Your task to perform on an android device: Search for razer thresher on ebay.com, select the first entry, add it to the cart, then select checkout. Image 0: 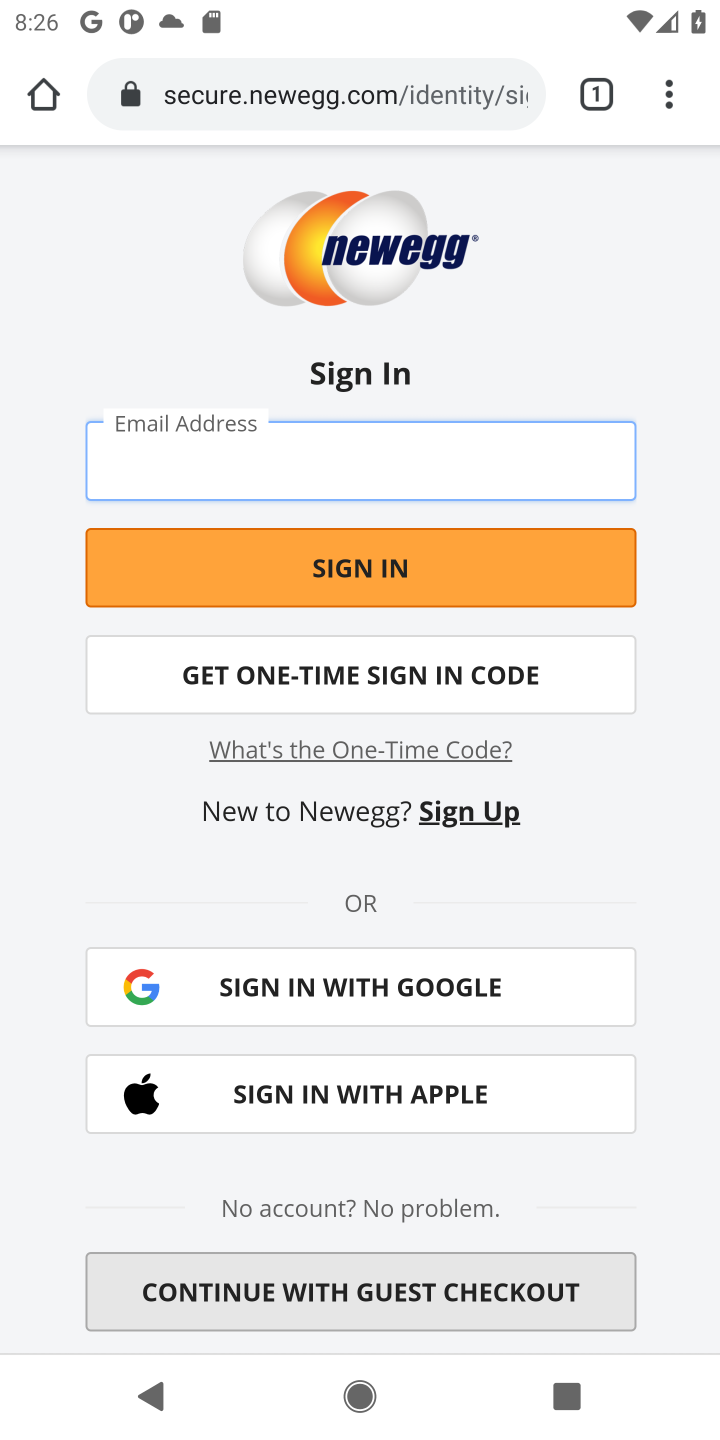
Step 0: press home button
Your task to perform on an android device: Search for razer thresher on ebay.com, select the first entry, add it to the cart, then select checkout. Image 1: 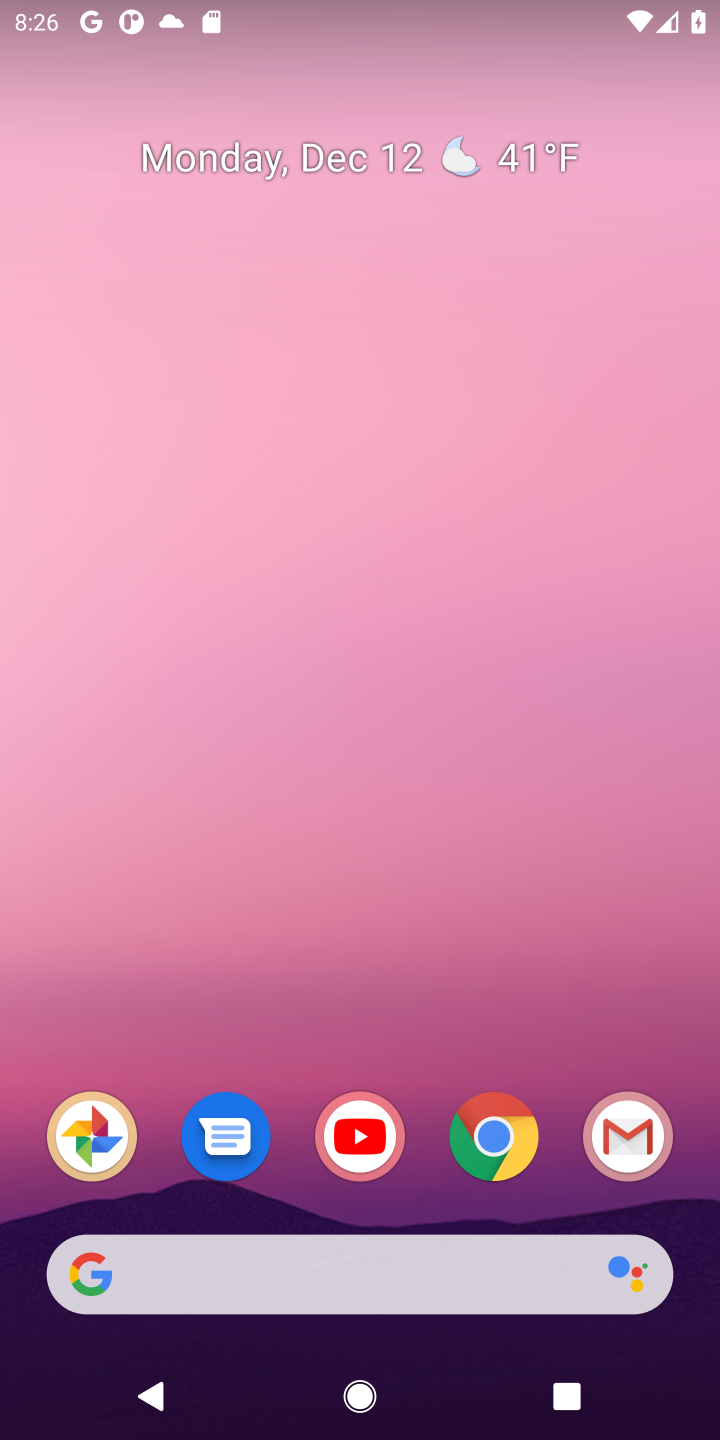
Step 1: click (487, 1142)
Your task to perform on an android device: Search for razer thresher on ebay.com, select the first entry, add it to the cart, then select checkout. Image 2: 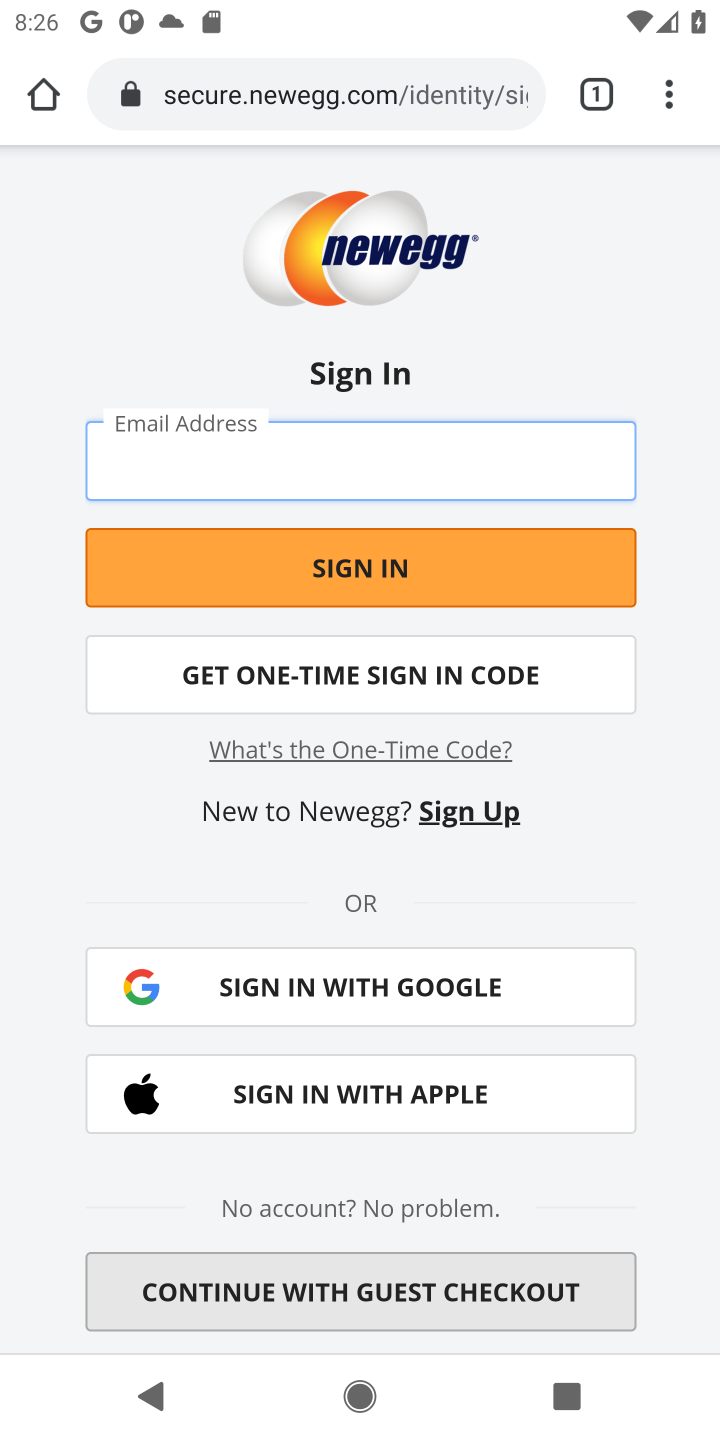
Step 2: click (299, 93)
Your task to perform on an android device: Search for razer thresher on ebay.com, select the first entry, add it to the cart, then select checkout. Image 3: 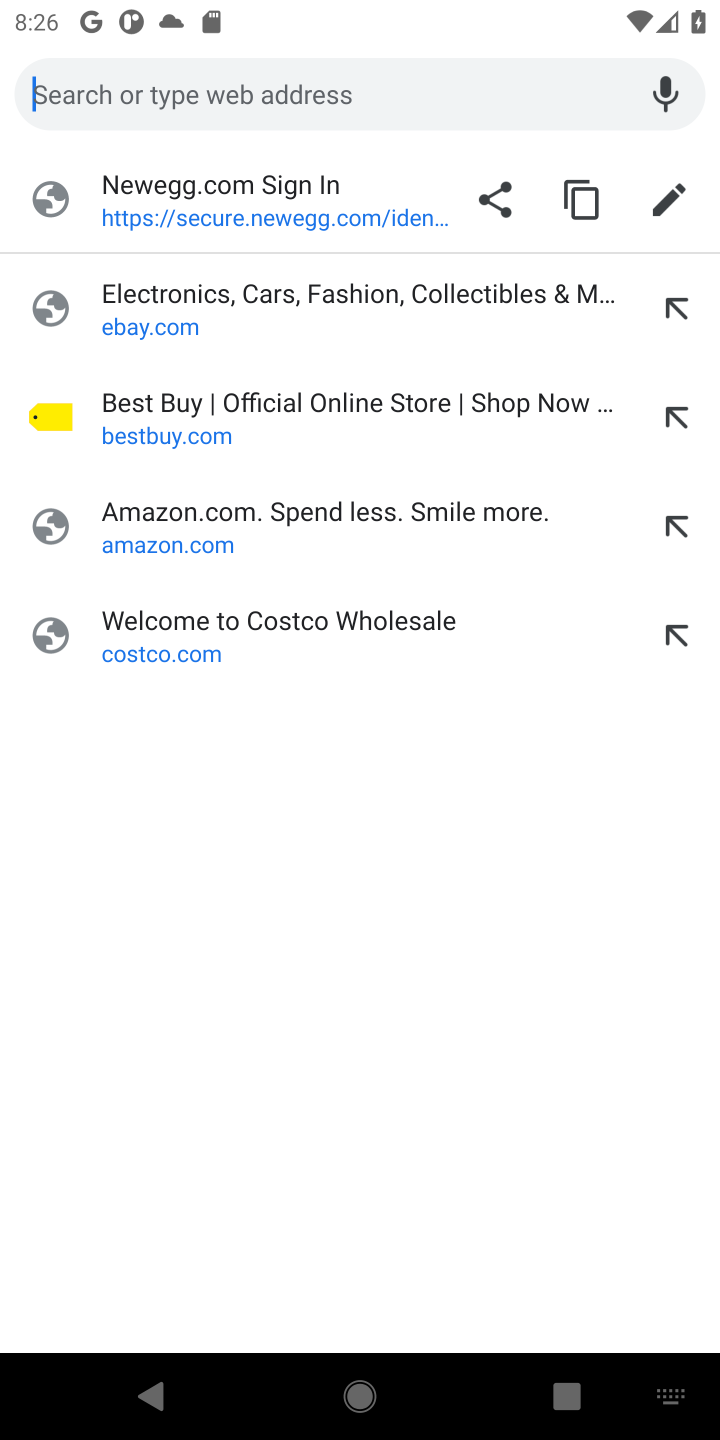
Step 3: click (166, 311)
Your task to perform on an android device: Search for razer thresher on ebay.com, select the first entry, add it to the cart, then select checkout. Image 4: 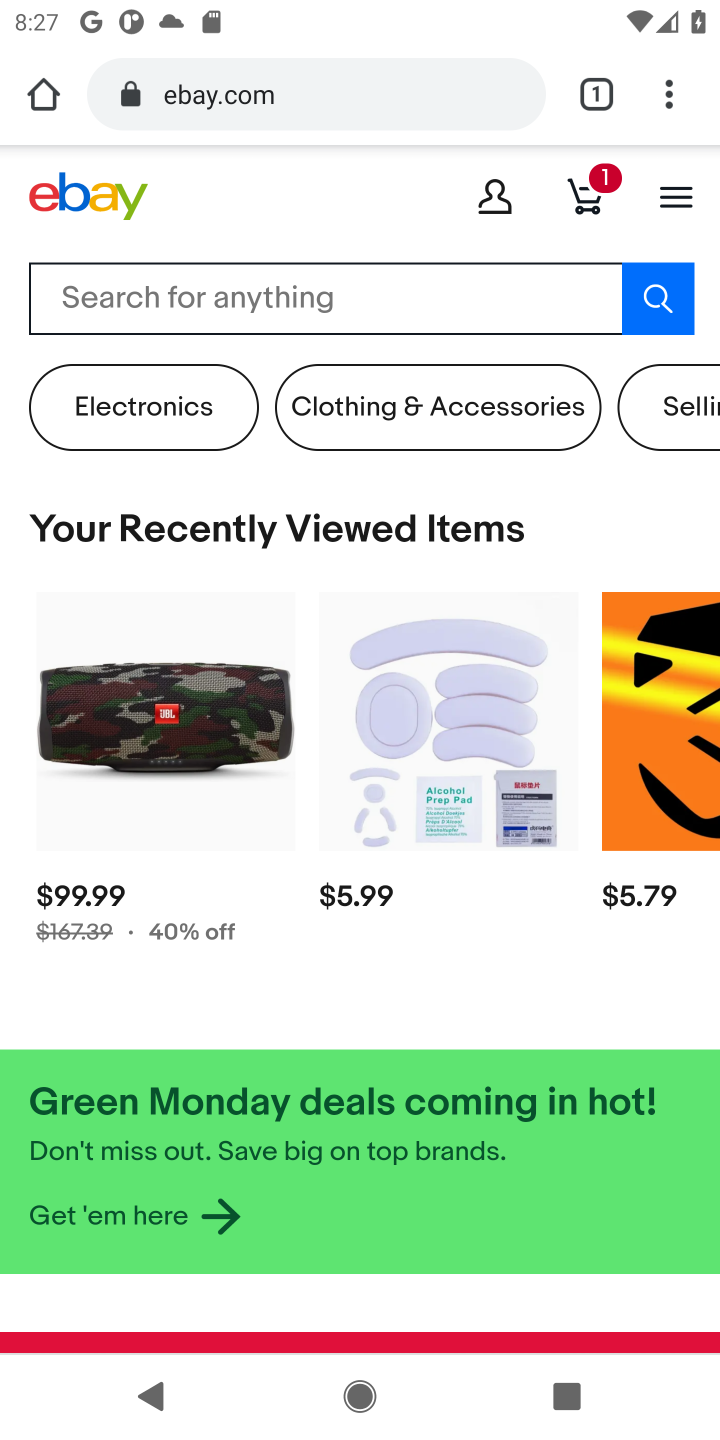
Step 4: click (169, 298)
Your task to perform on an android device: Search for razer thresher on ebay.com, select the first entry, add it to the cart, then select checkout. Image 5: 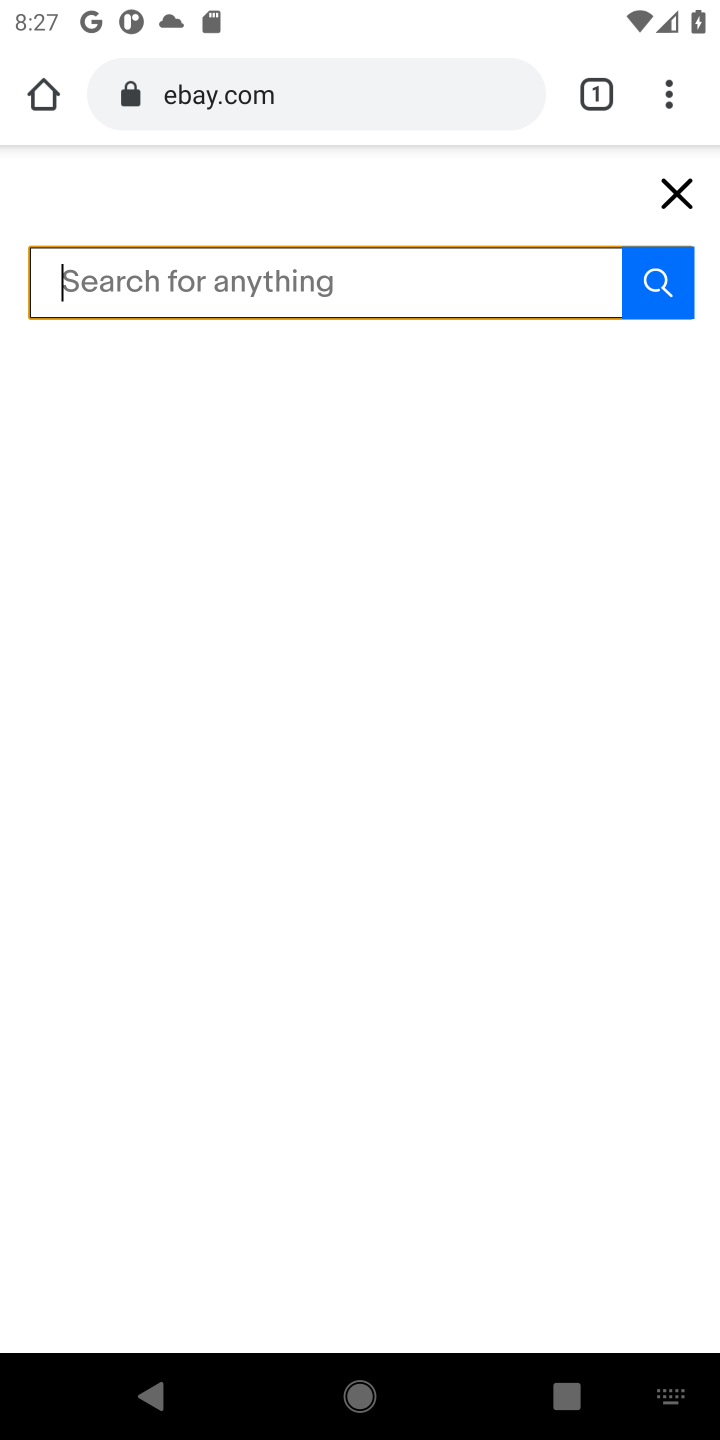
Step 5: type "razer thresher"
Your task to perform on an android device: Search for razer thresher on ebay.com, select the first entry, add it to the cart, then select checkout. Image 6: 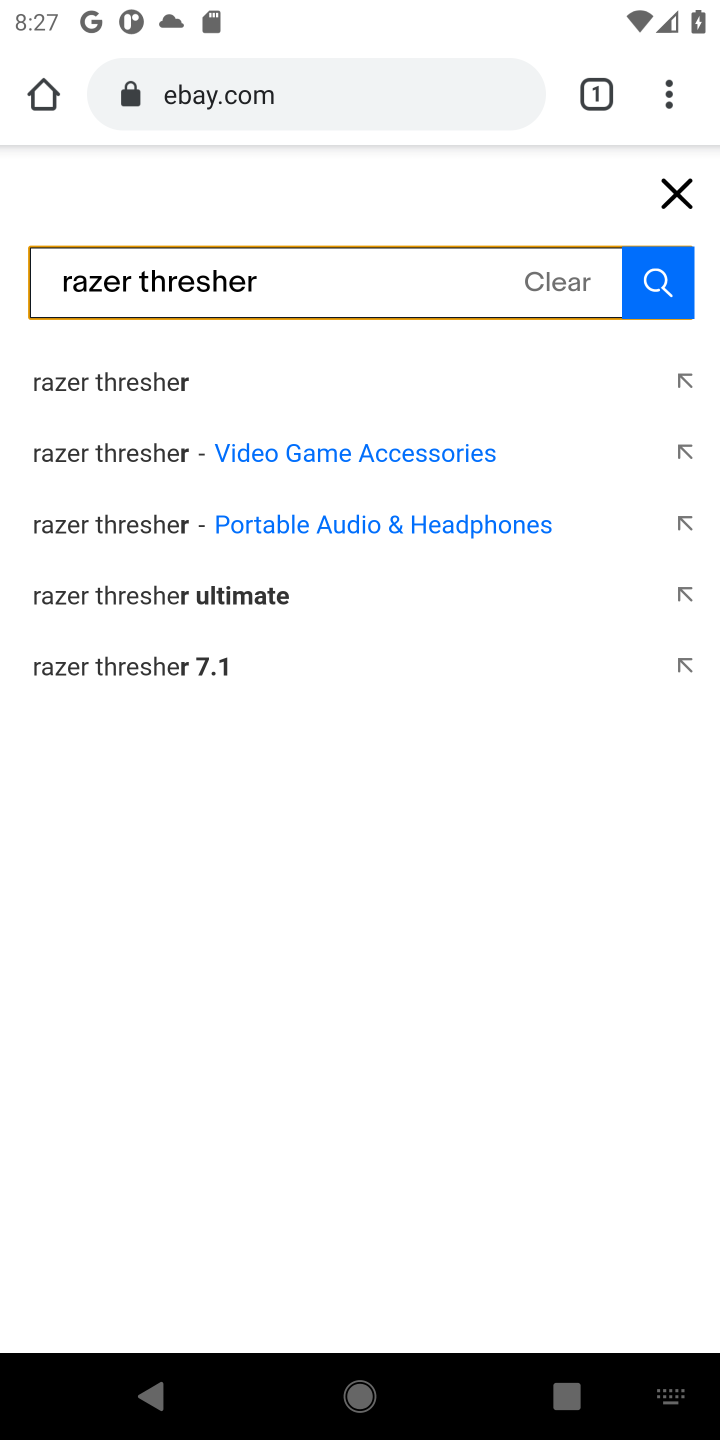
Step 6: click (161, 395)
Your task to perform on an android device: Search for razer thresher on ebay.com, select the first entry, add it to the cart, then select checkout. Image 7: 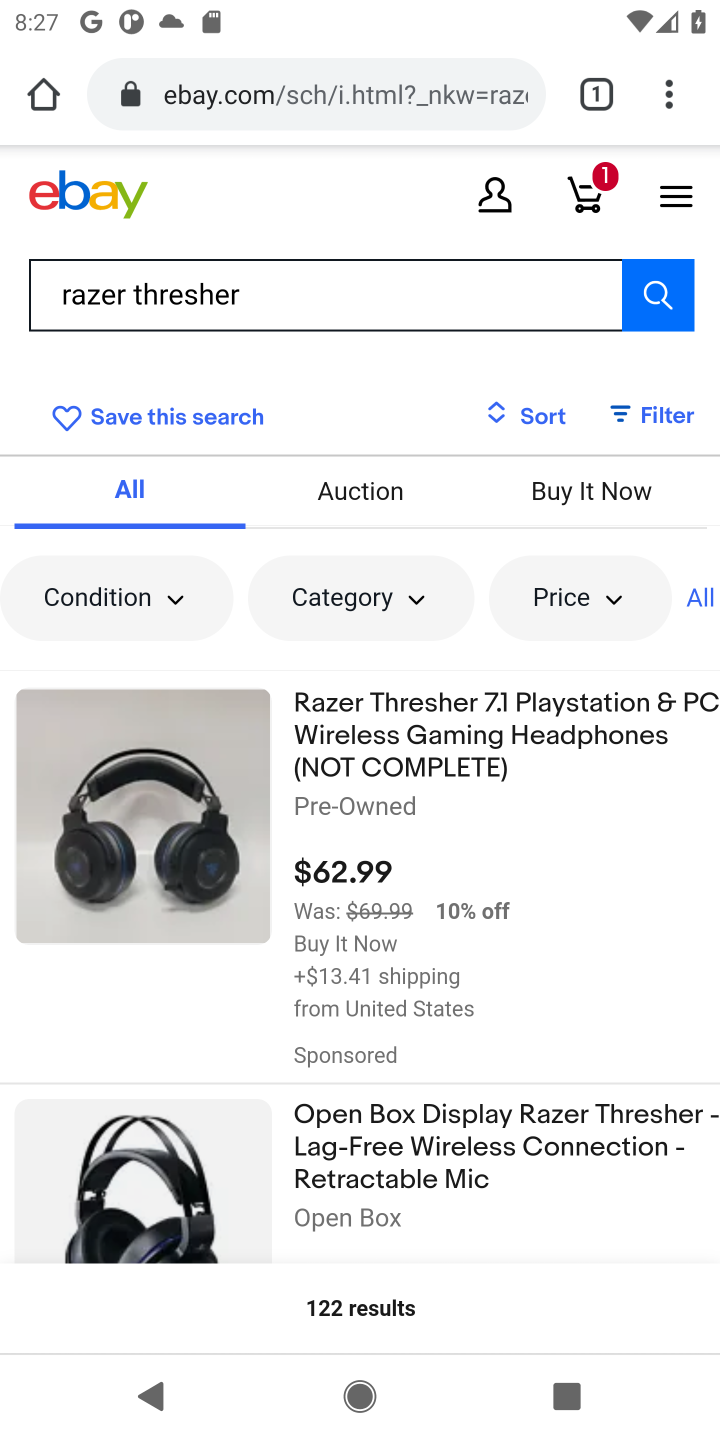
Step 7: click (355, 755)
Your task to perform on an android device: Search for razer thresher on ebay.com, select the first entry, add it to the cart, then select checkout. Image 8: 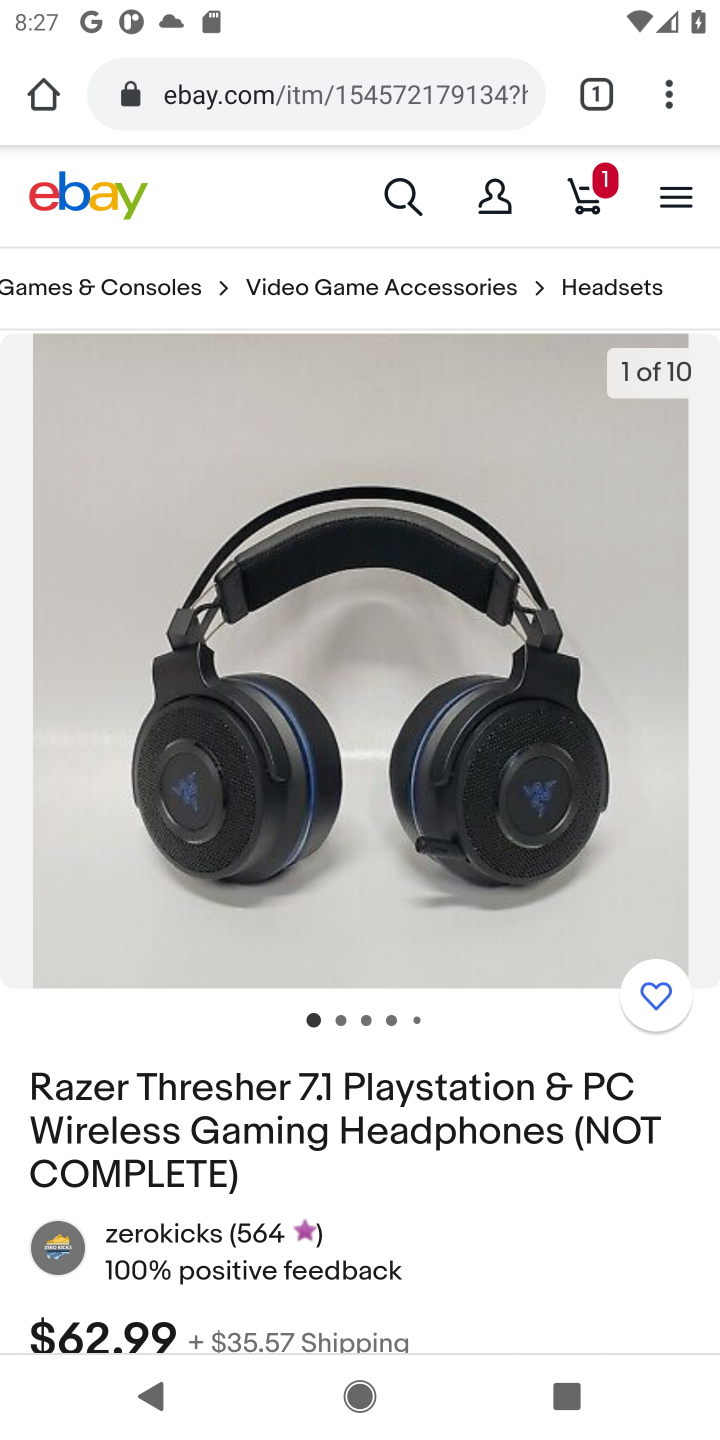
Step 8: drag from (417, 1055) to (371, 468)
Your task to perform on an android device: Search for razer thresher on ebay.com, select the first entry, add it to the cart, then select checkout. Image 9: 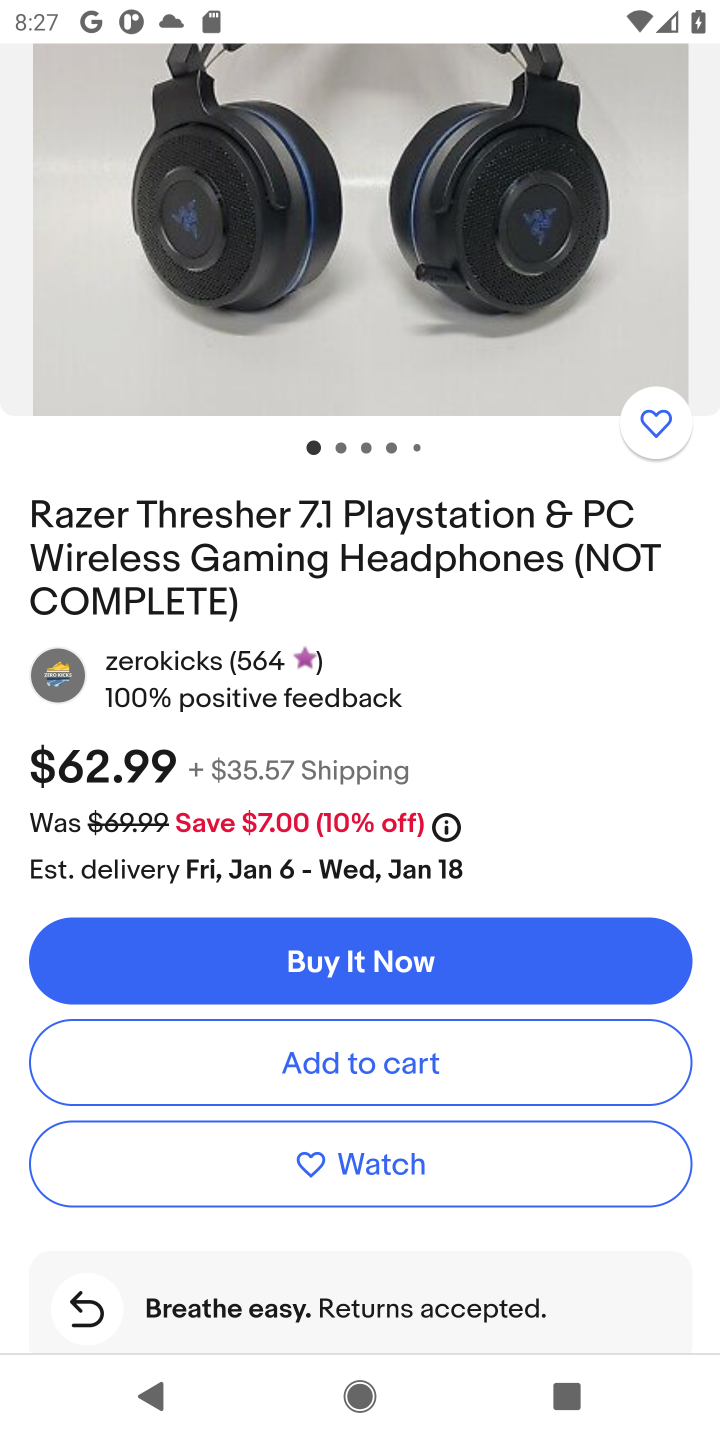
Step 9: click (335, 1052)
Your task to perform on an android device: Search for razer thresher on ebay.com, select the first entry, add it to the cart, then select checkout. Image 10: 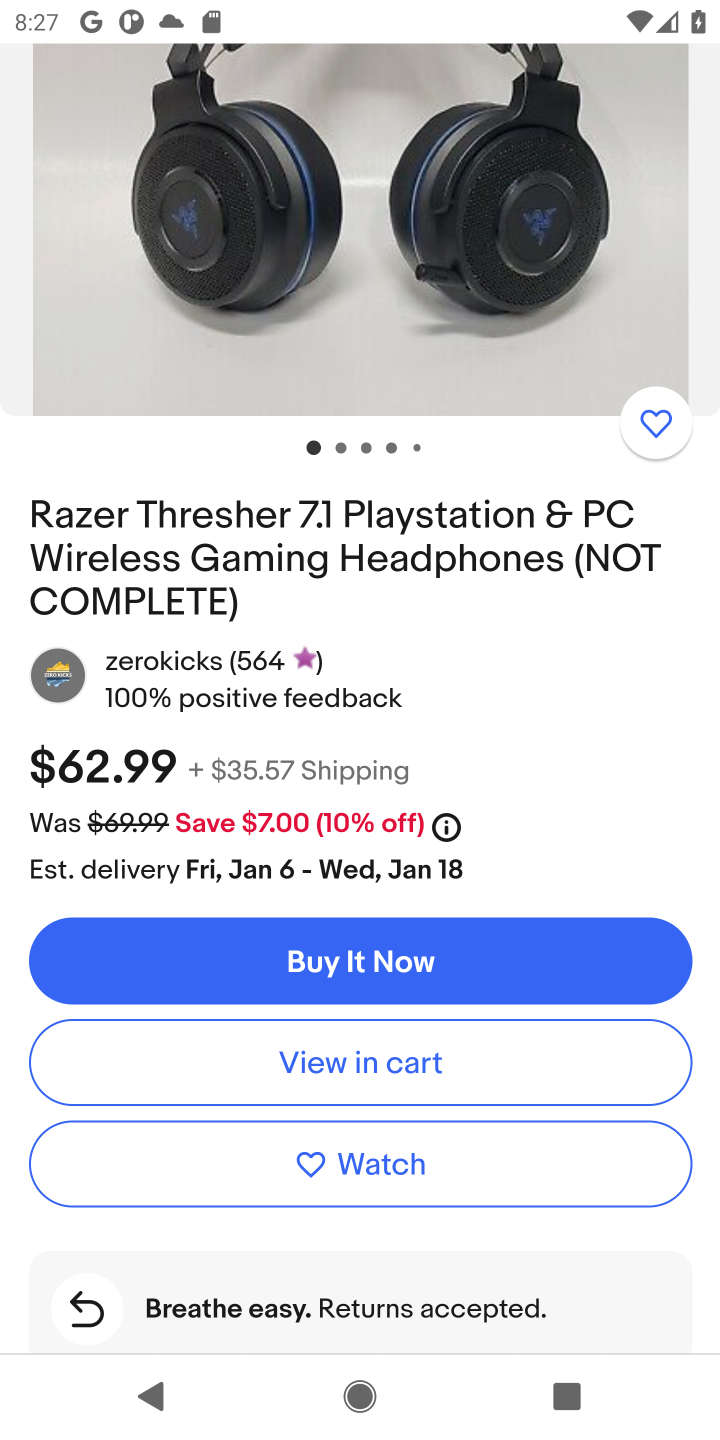
Step 10: click (333, 1061)
Your task to perform on an android device: Search for razer thresher on ebay.com, select the first entry, add it to the cart, then select checkout. Image 11: 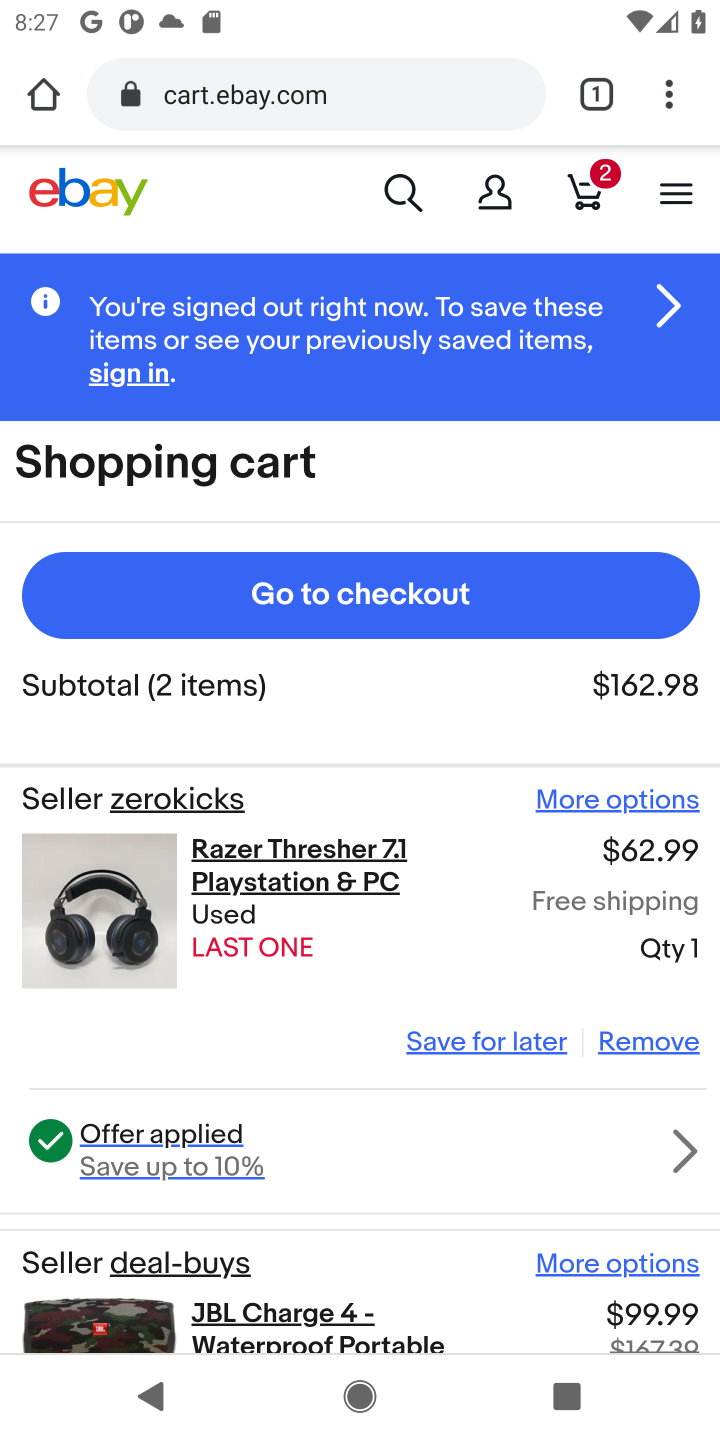
Step 11: click (292, 605)
Your task to perform on an android device: Search for razer thresher on ebay.com, select the first entry, add it to the cart, then select checkout. Image 12: 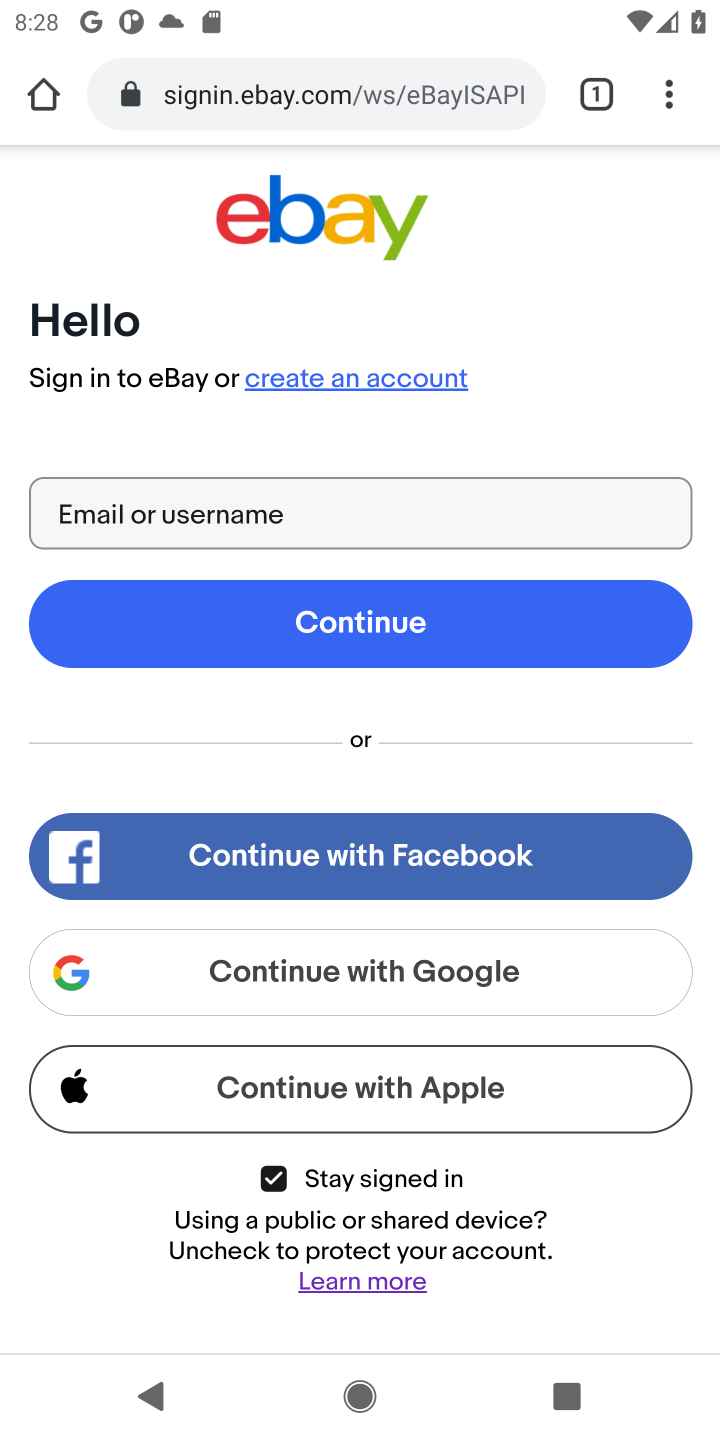
Step 12: task complete